Your task to perform on an android device: Go to CNN.com Image 0: 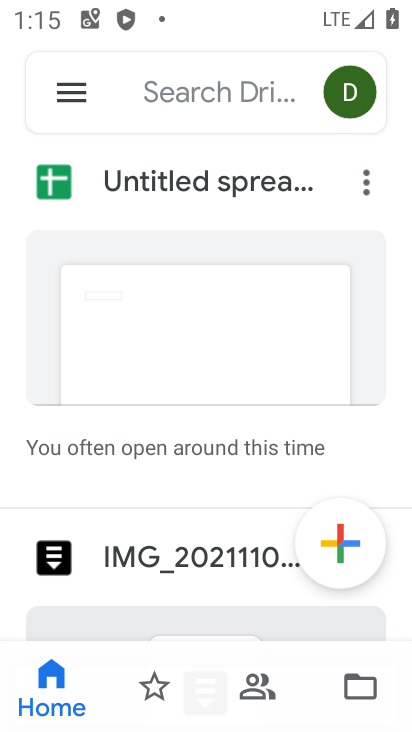
Step 0: press home button
Your task to perform on an android device: Go to CNN.com Image 1: 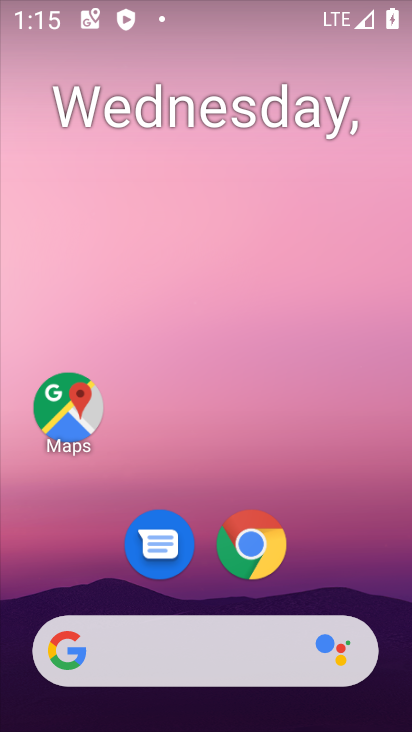
Step 1: drag from (400, 662) to (327, 22)
Your task to perform on an android device: Go to CNN.com Image 2: 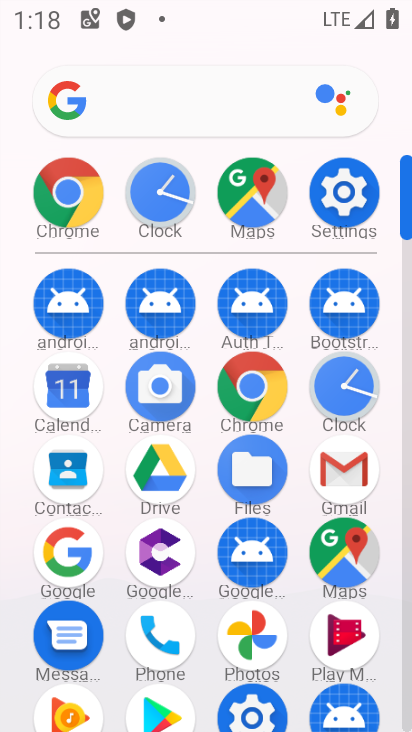
Step 2: click (230, 387)
Your task to perform on an android device: Go to CNN.com Image 3: 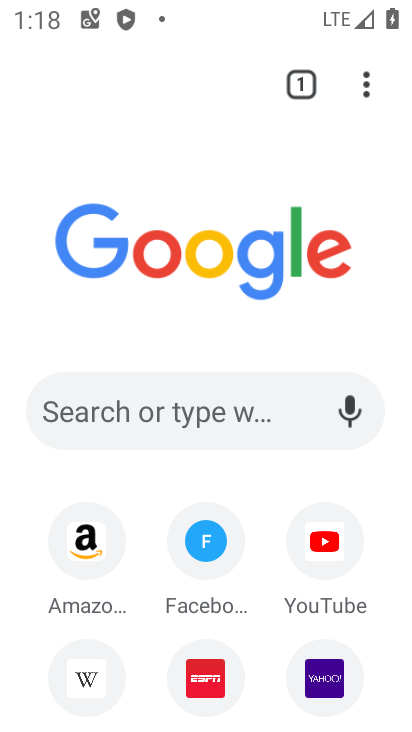
Step 3: click (139, 425)
Your task to perform on an android device: Go to CNN.com Image 4: 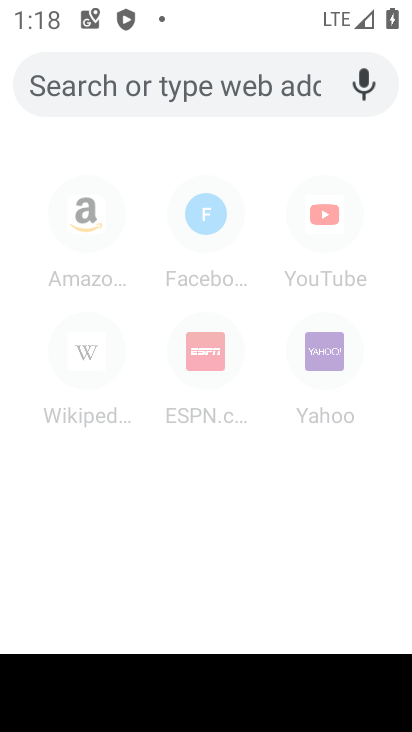
Step 4: type "cnn.com"
Your task to perform on an android device: Go to CNN.com Image 5: 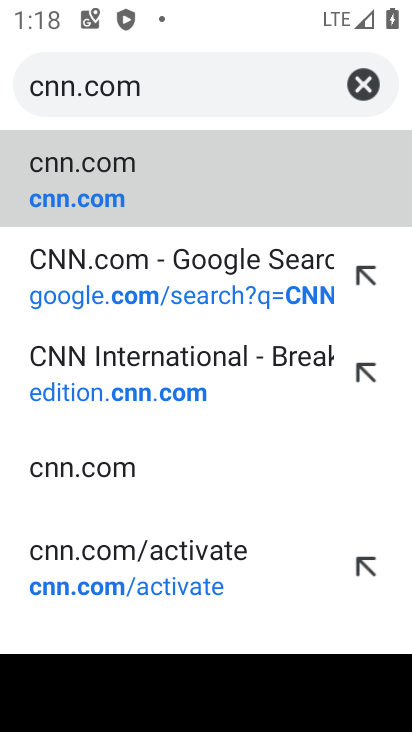
Step 5: click (270, 164)
Your task to perform on an android device: Go to CNN.com Image 6: 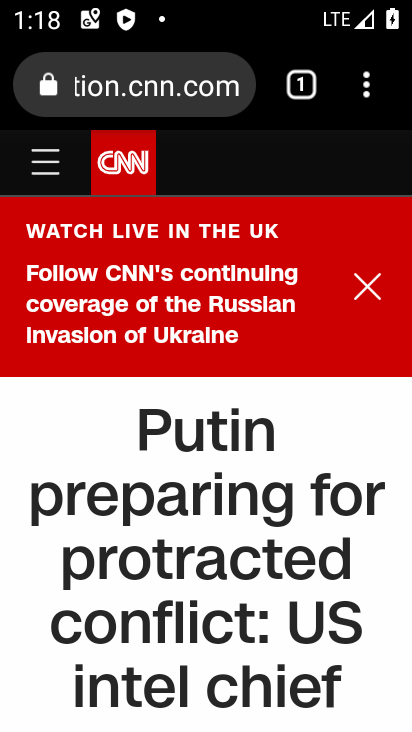
Step 6: task complete